Your task to perform on an android device: toggle show notifications on the lock screen Image 0: 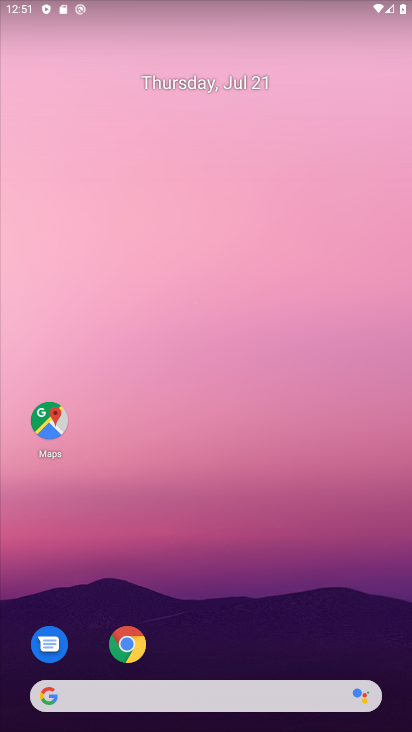
Step 0: drag from (208, 677) to (175, 133)
Your task to perform on an android device: toggle show notifications on the lock screen Image 1: 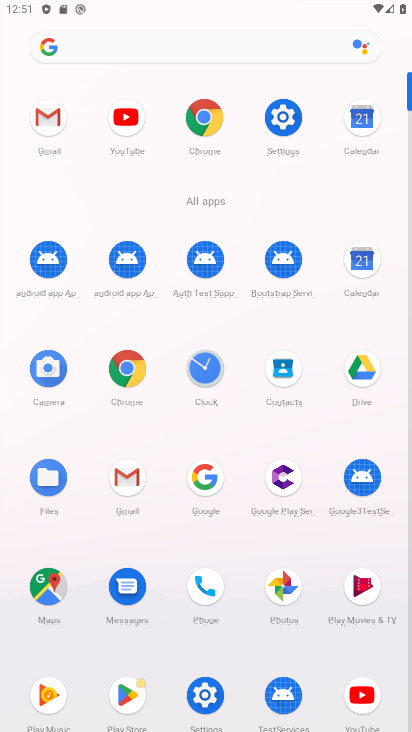
Step 1: click (201, 692)
Your task to perform on an android device: toggle show notifications on the lock screen Image 2: 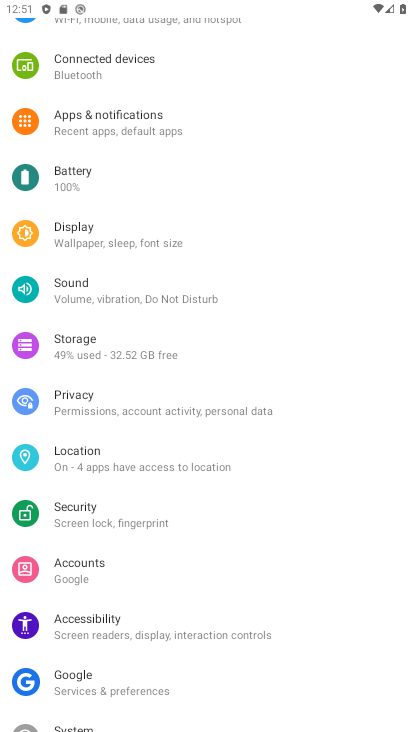
Step 2: click (92, 127)
Your task to perform on an android device: toggle show notifications on the lock screen Image 3: 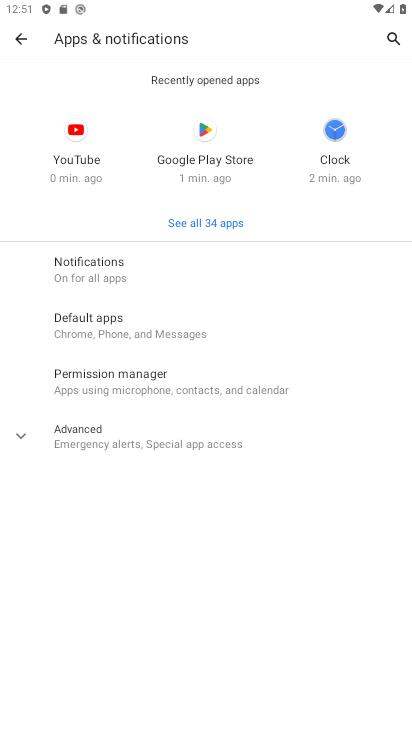
Step 3: click (105, 267)
Your task to perform on an android device: toggle show notifications on the lock screen Image 4: 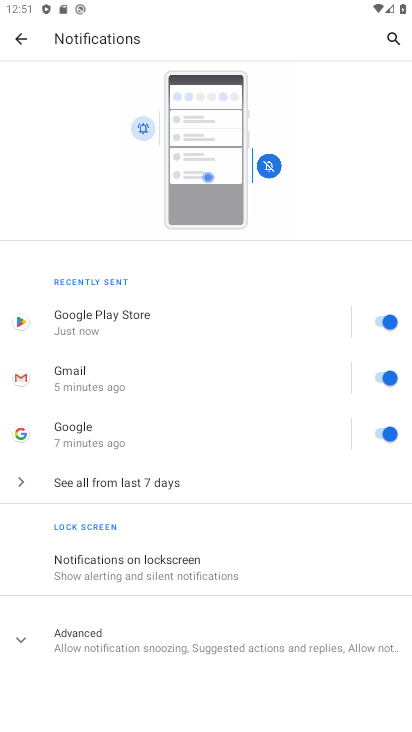
Step 4: click (198, 569)
Your task to perform on an android device: toggle show notifications on the lock screen Image 5: 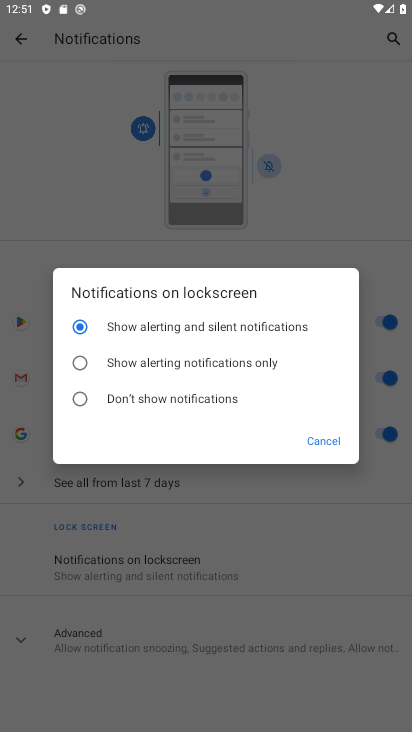
Step 5: drag from (168, 396) to (188, 579)
Your task to perform on an android device: toggle show notifications on the lock screen Image 6: 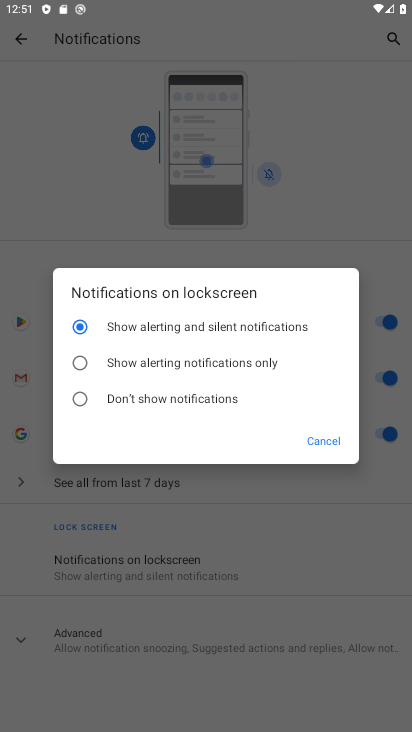
Step 6: click (125, 376)
Your task to perform on an android device: toggle show notifications on the lock screen Image 7: 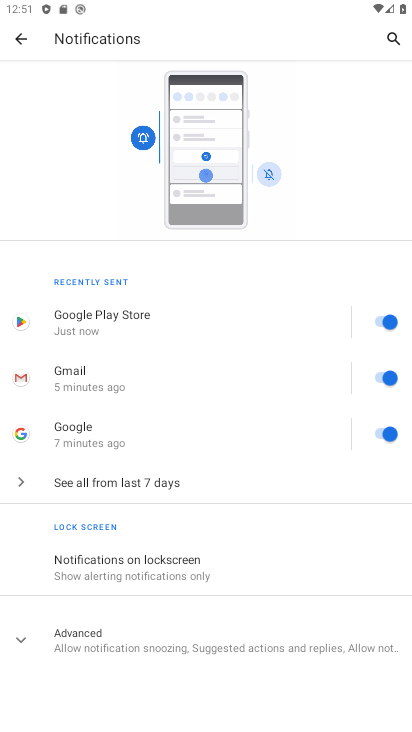
Step 7: task complete